Your task to perform on an android device: Go to Google Image 0: 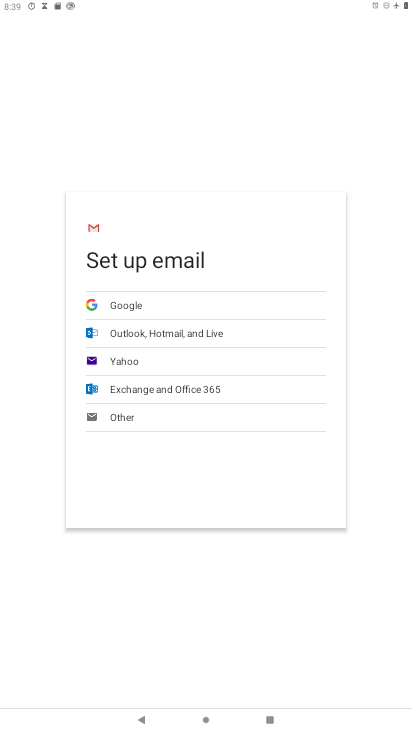
Step 0: press home button
Your task to perform on an android device: Go to Google Image 1: 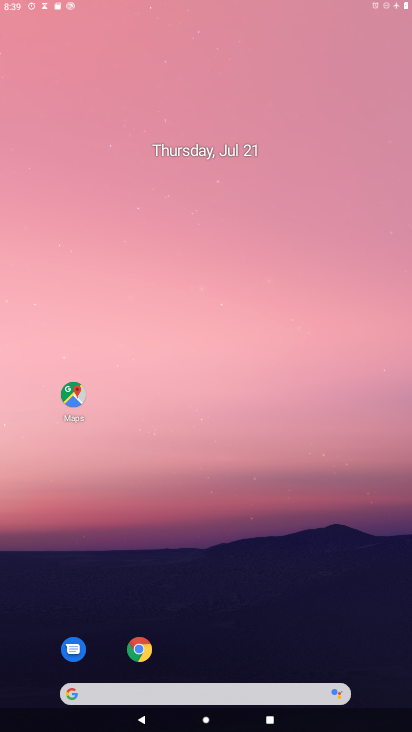
Step 1: drag from (393, 671) to (249, 75)
Your task to perform on an android device: Go to Google Image 2: 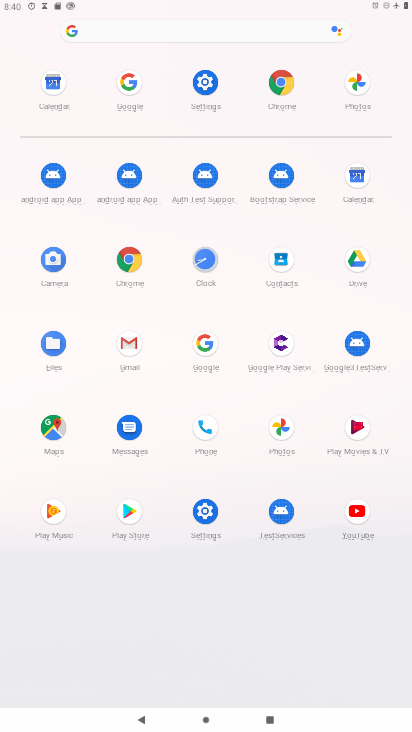
Step 2: click (202, 346)
Your task to perform on an android device: Go to Google Image 3: 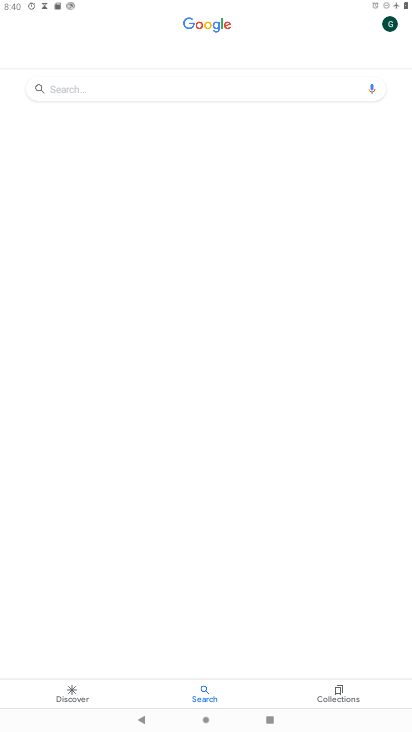
Step 3: task complete